Your task to perform on an android device: Open the stopwatch Image 0: 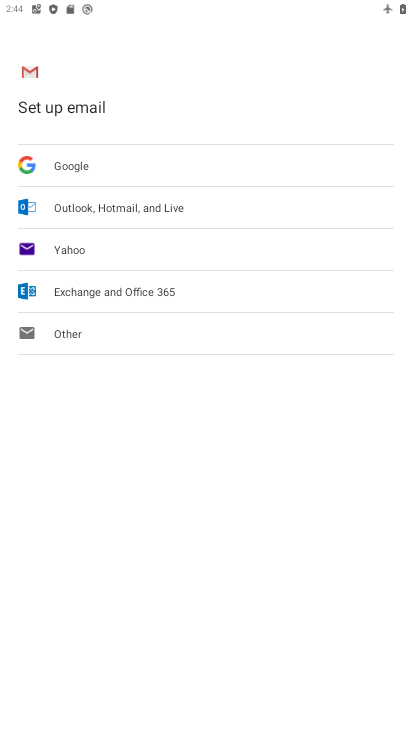
Step 0: press home button
Your task to perform on an android device: Open the stopwatch Image 1: 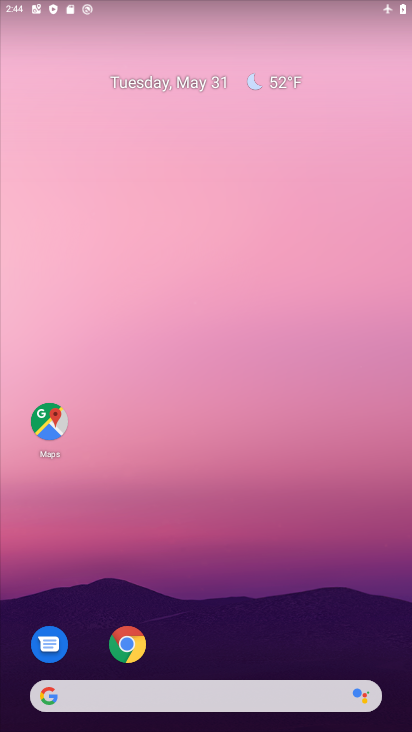
Step 1: drag from (117, 723) to (101, 114)
Your task to perform on an android device: Open the stopwatch Image 2: 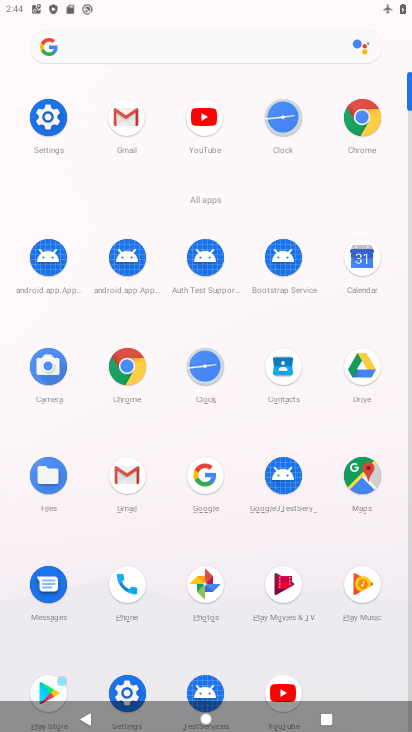
Step 2: click (206, 367)
Your task to perform on an android device: Open the stopwatch Image 3: 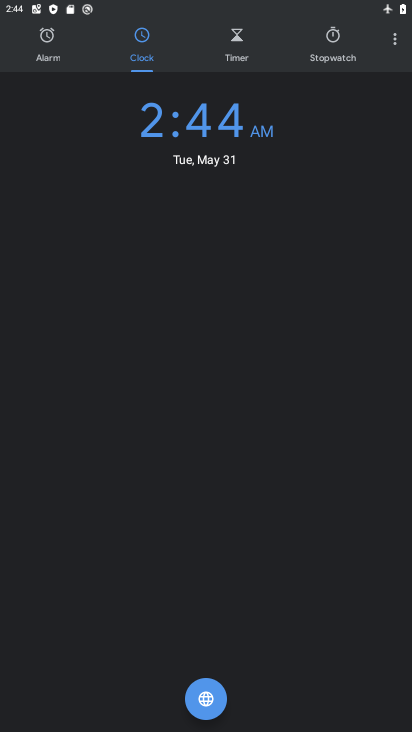
Step 3: click (333, 63)
Your task to perform on an android device: Open the stopwatch Image 4: 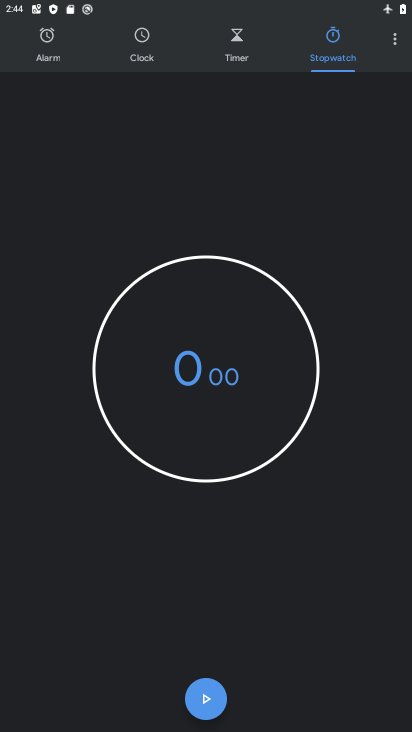
Step 4: task complete